Your task to perform on an android device: set the stopwatch Image 0: 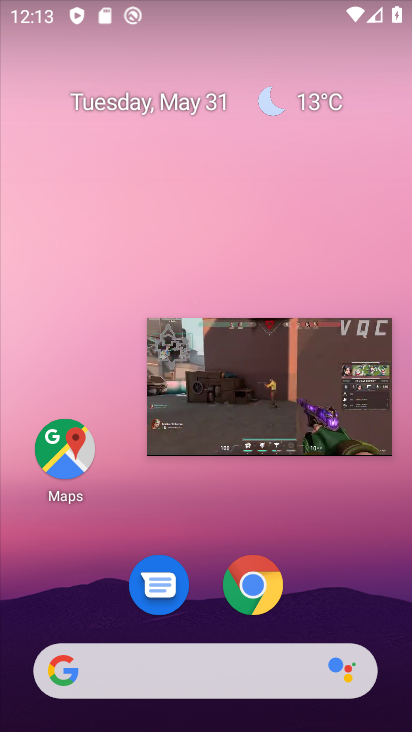
Step 0: drag from (254, 350) to (193, 730)
Your task to perform on an android device: set the stopwatch Image 1: 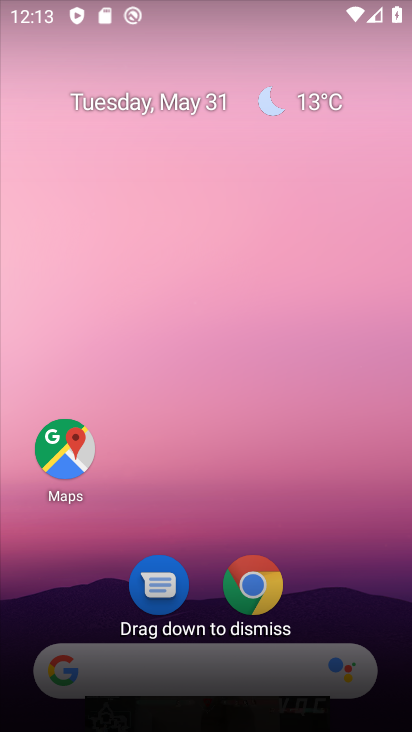
Step 1: press home button
Your task to perform on an android device: set the stopwatch Image 2: 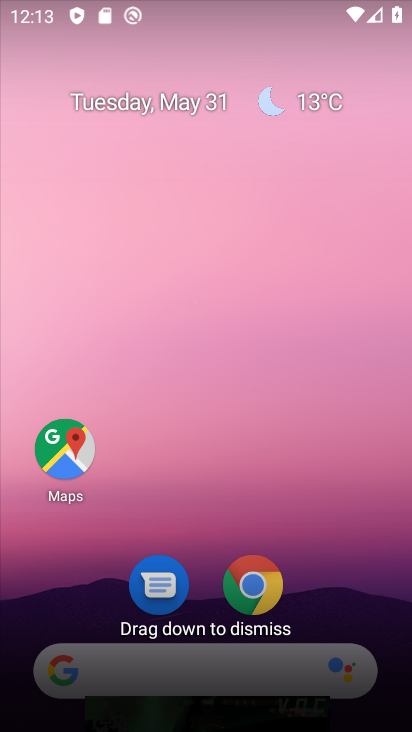
Step 2: click (398, 351)
Your task to perform on an android device: set the stopwatch Image 3: 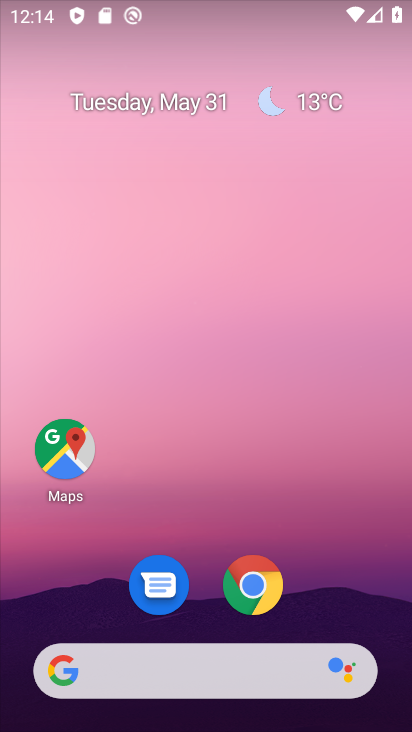
Step 3: drag from (220, 522) to (249, 55)
Your task to perform on an android device: set the stopwatch Image 4: 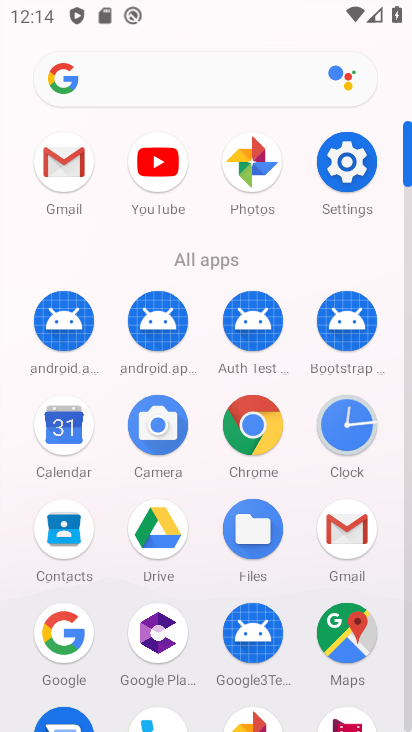
Step 4: click (341, 436)
Your task to perform on an android device: set the stopwatch Image 5: 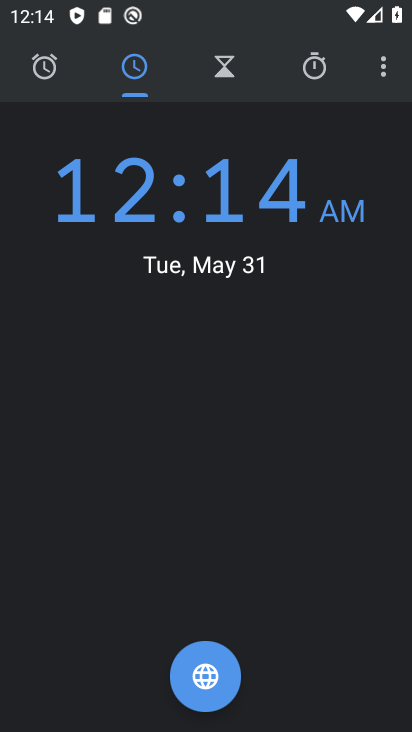
Step 5: click (318, 69)
Your task to perform on an android device: set the stopwatch Image 6: 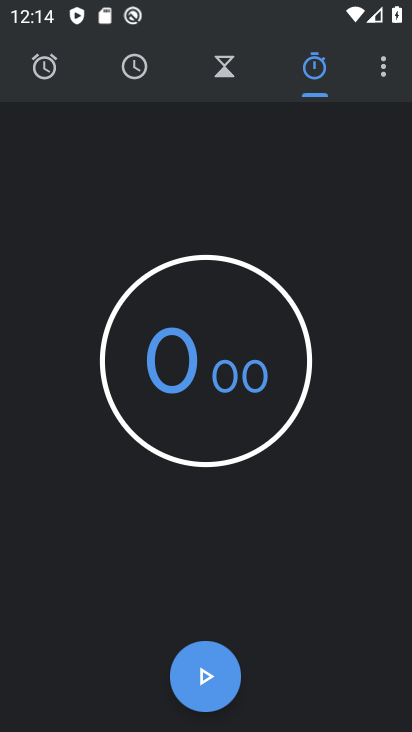
Step 6: task complete